Your task to perform on an android device: Go to location settings Image 0: 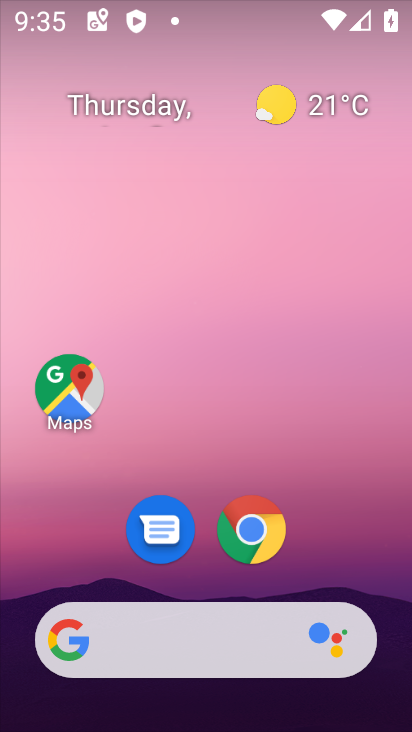
Step 0: drag from (177, 541) to (363, 20)
Your task to perform on an android device: Go to location settings Image 1: 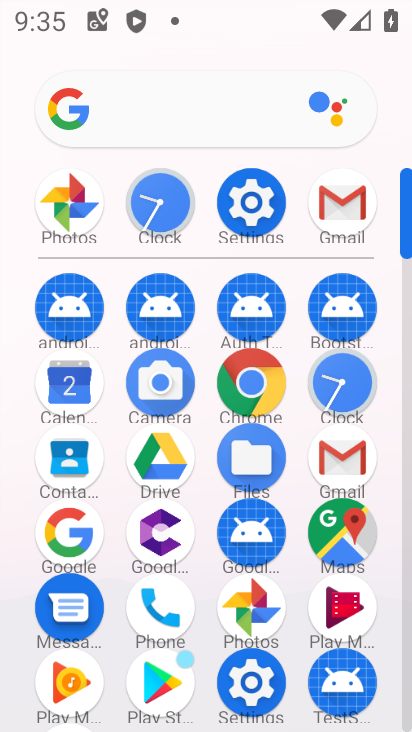
Step 1: click (244, 207)
Your task to perform on an android device: Go to location settings Image 2: 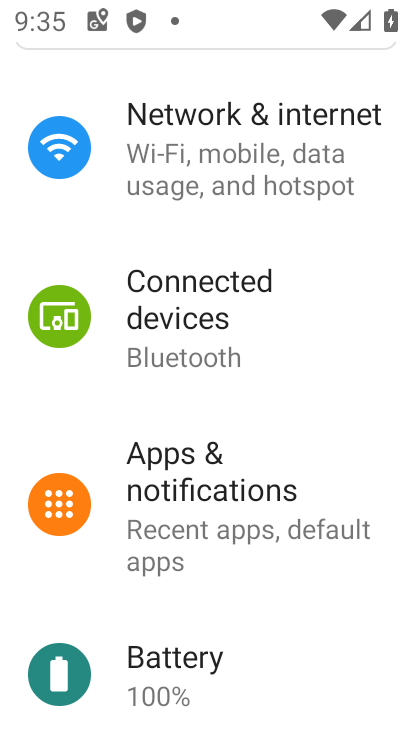
Step 2: drag from (236, 661) to (308, 94)
Your task to perform on an android device: Go to location settings Image 3: 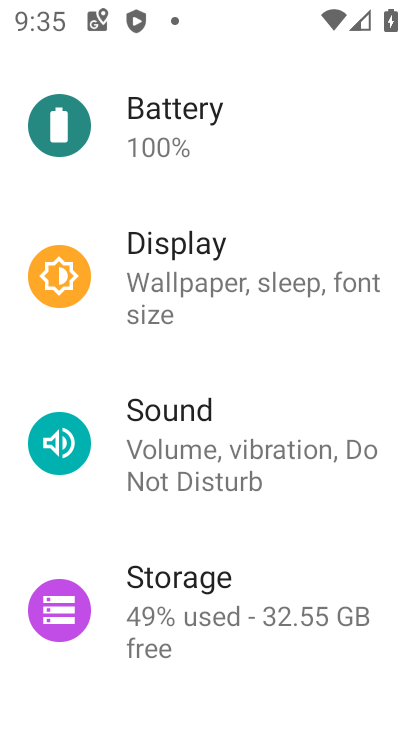
Step 3: drag from (251, 658) to (309, 5)
Your task to perform on an android device: Go to location settings Image 4: 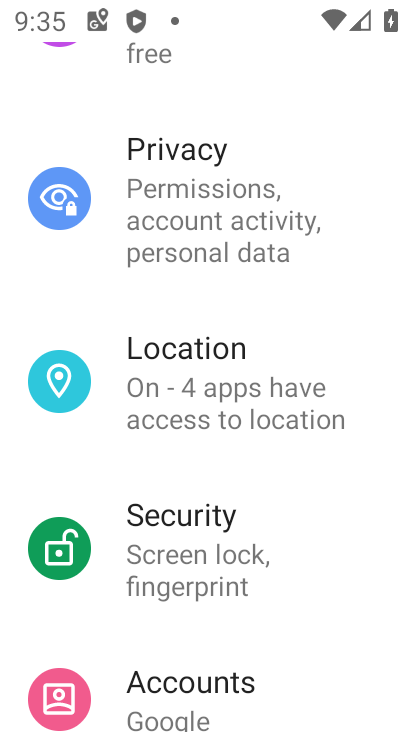
Step 4: click (236, 400)
Your task to perform on an android device: Go to location settings Image 5: 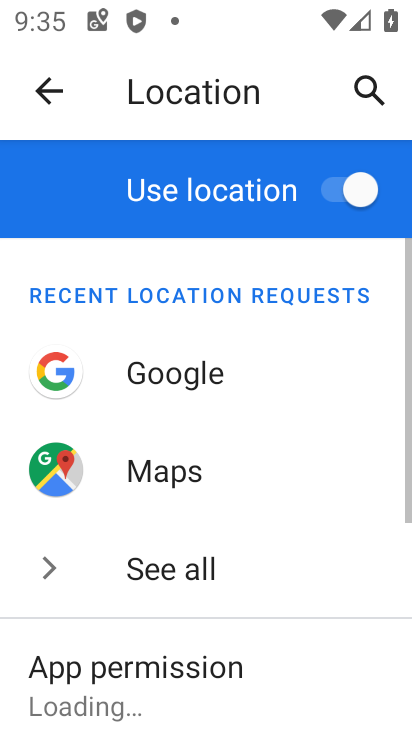
Step 5: task complete